Your task to perform on an android device: Open settings on Google Maps Image 0: 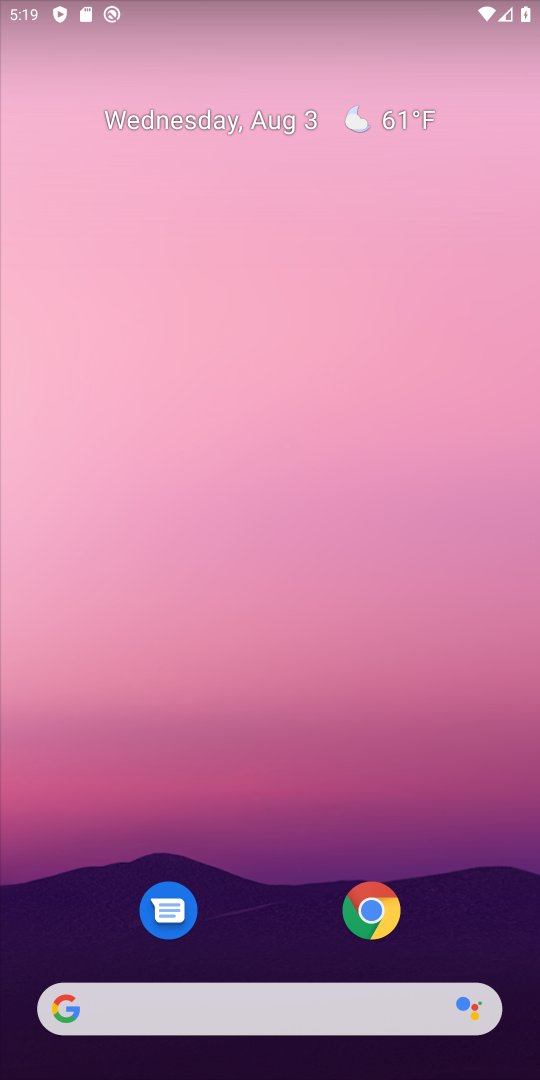
Step 0: drag from (280, 924) to (342, 152)
Your task to perform on an android device: Open settings on Google Maps Image 1: 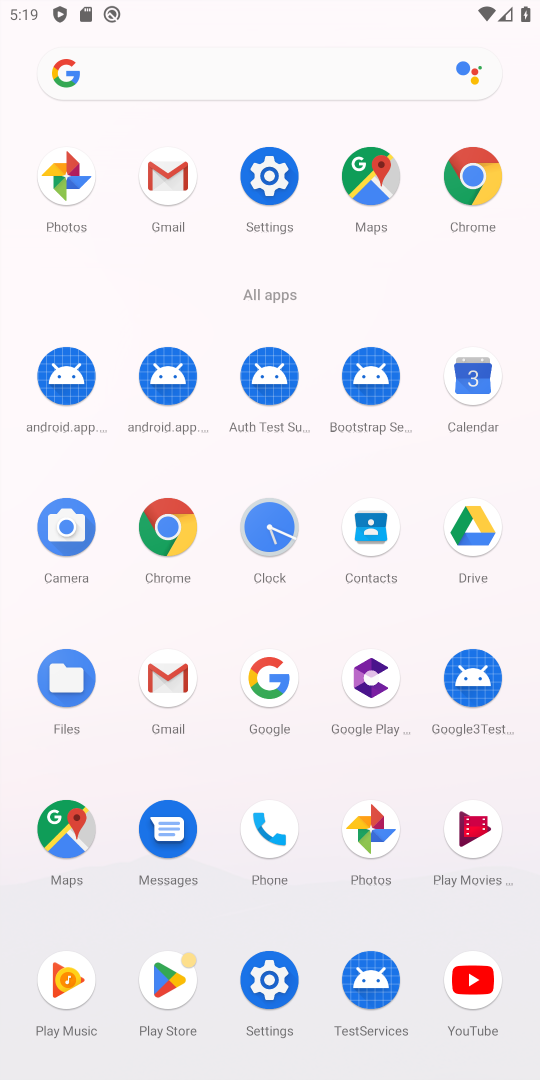
Step 1: click (70, 822)
Your task to perform on an android device: Open settings on Google Maps Image 2: 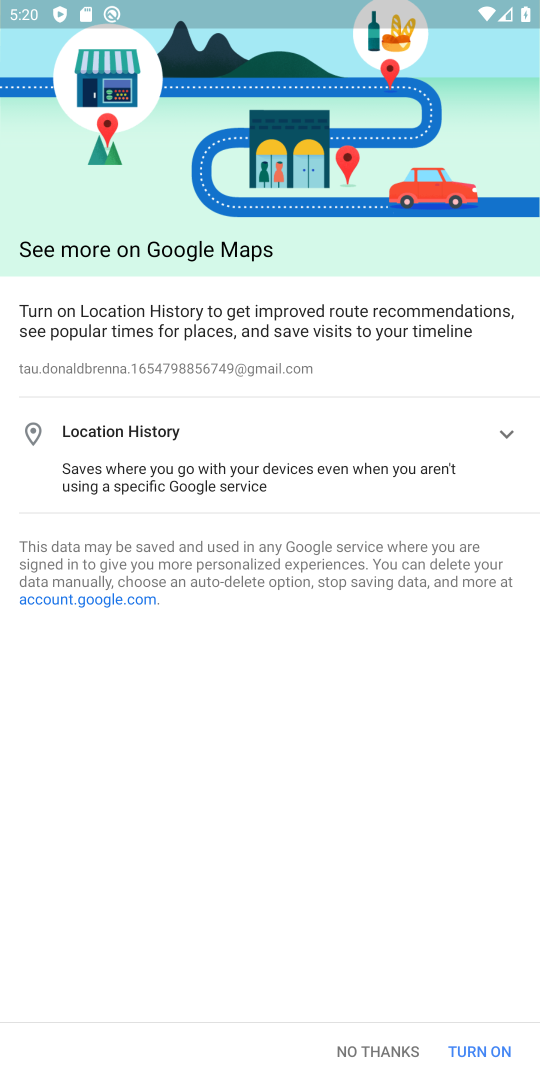
Step 2: click (369, 1049)
Your task to perform on an android device: Open settings on Google Maps Image 3: 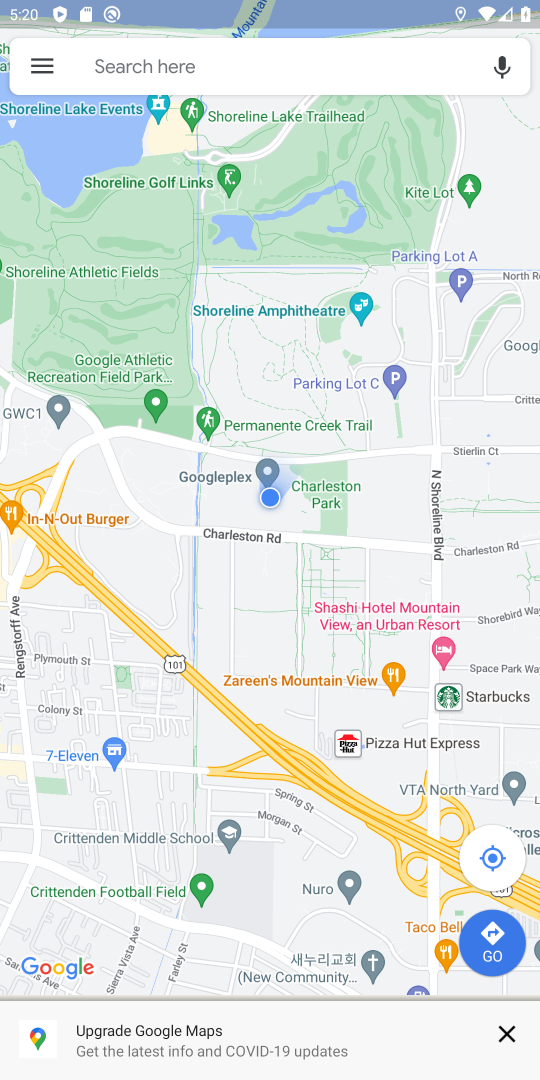
Step 3: click (44, 75)
Your task to perform on an android device: Open settings on Google Maps Image 4: 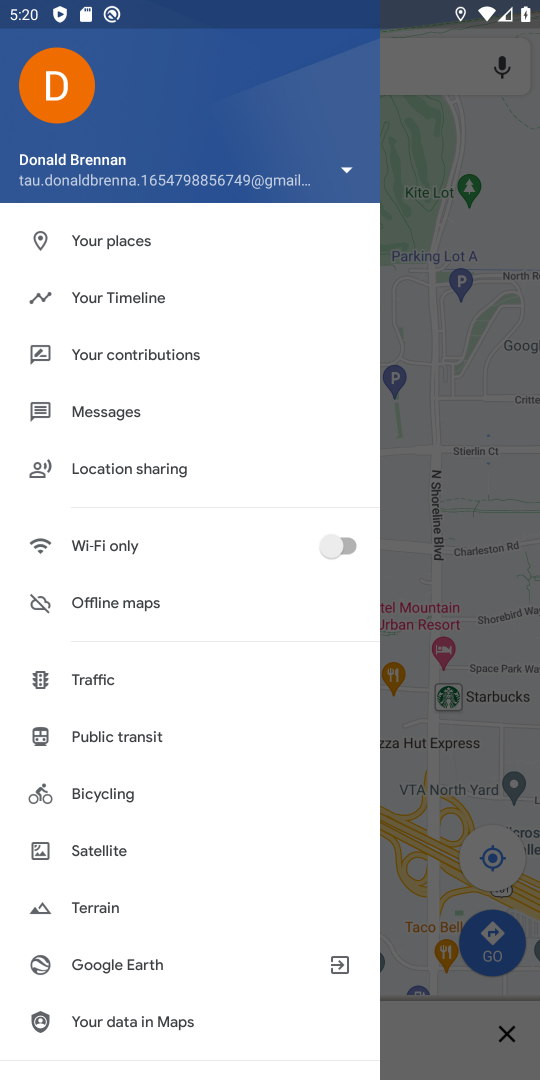
Step 4: task complete